Your task to perform on an android device: Find coffee shops on Maps Image 0: 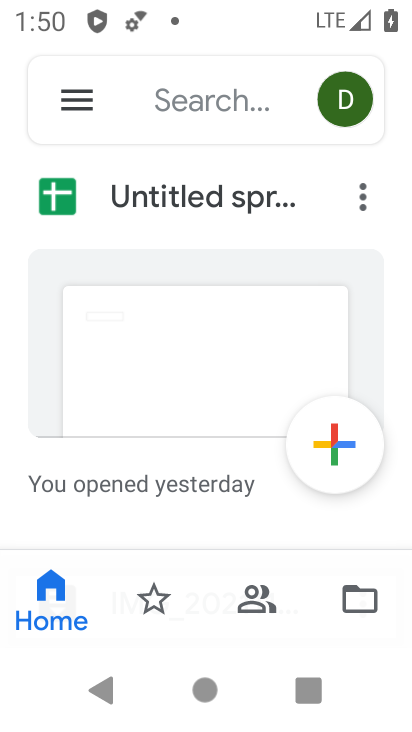
Step 0: press home button
Your task to perform on an android device: Find coffee shops on Maps Image 1: 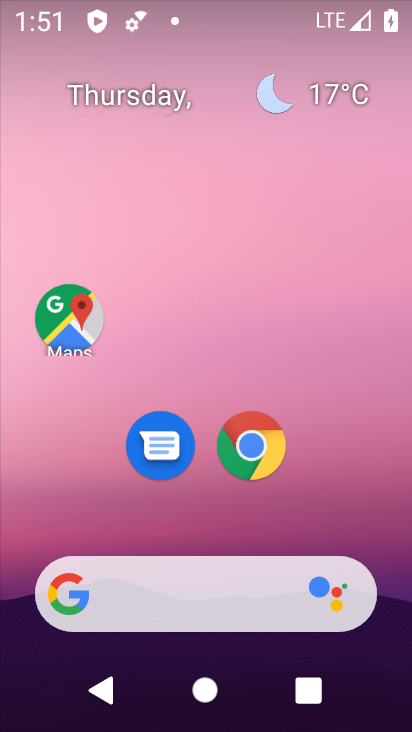
Step 1: click (58, 313)
Your task to perform on an android device: Find coffee shops on Maps Image 2: 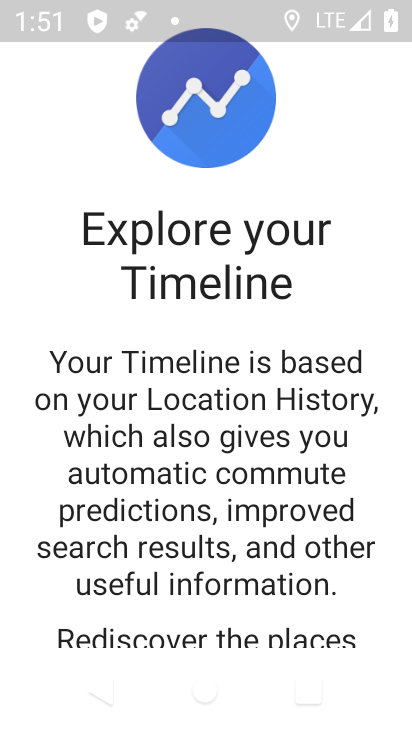
Step 2: drag from (280, 429) to (289, 93)
Your task to perform on an android device: Find coffee shops on Maps Image 3: 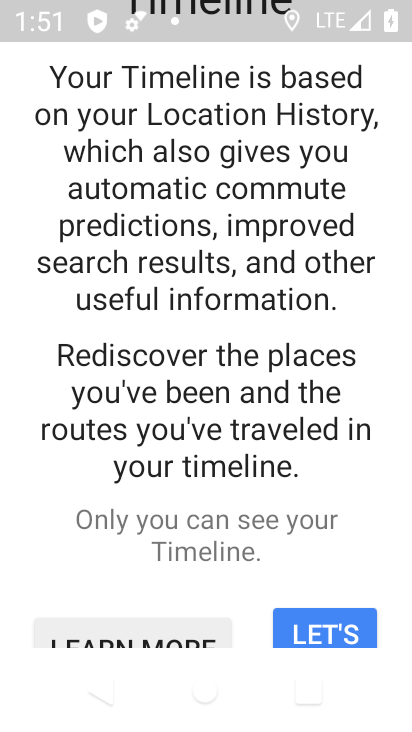
Step 3: drag from (218, 366) to (216, 86)
Your task to perform on an android device: Find coffee shops on Maps Image 4: 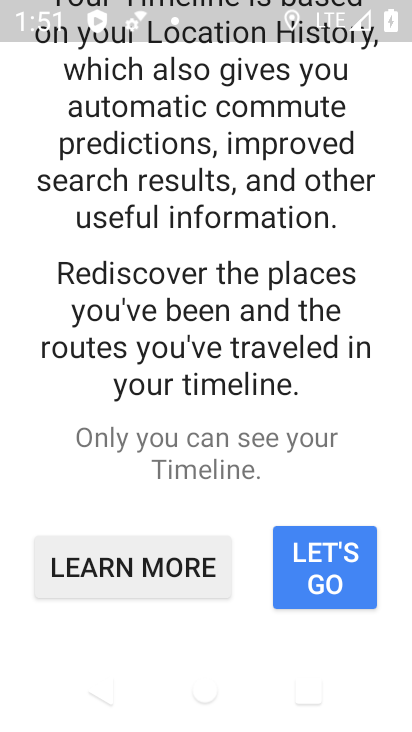
Step 4: click (284, 603)
Your task to perform on an android device: Find coffee shops on Maps Image 5: 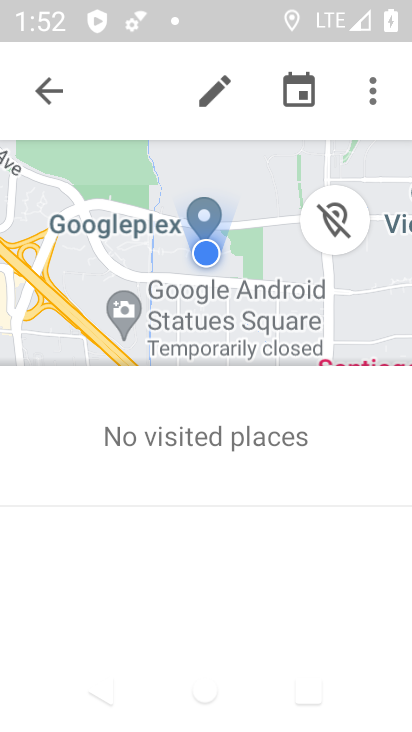
Step 5: click (52, 92)
Your task to perform on an android device: Find coffee shops on Maps Image 6: 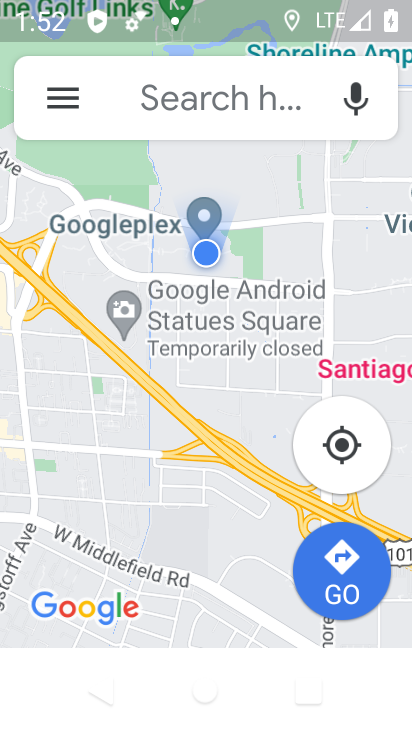
Step 6: click (149, 99)
Your task to perform on an android device: Find coffee shops on Maps Image 7: 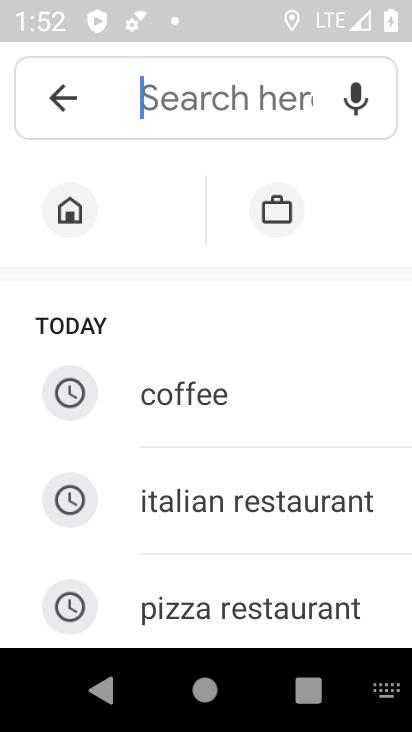
Step 7: click (175, 391)
Your task to perform on an android device: Find coffee shops on Maps Image 8: 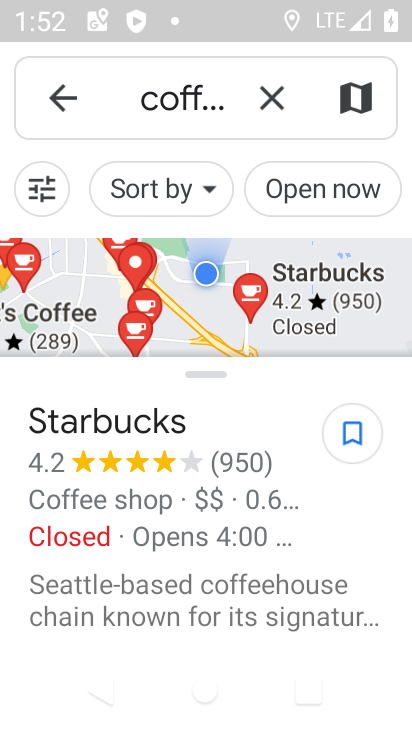
Step 8: task complete